Your task to perform on an android device: turn on bluetooth scan Image 0: 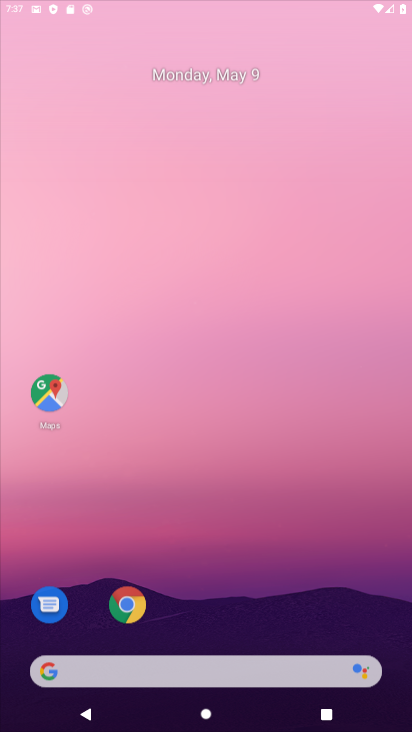
Step 0: click (286, 0)
Your task to perform on an android device: turn on bluetooth scan Image 1: 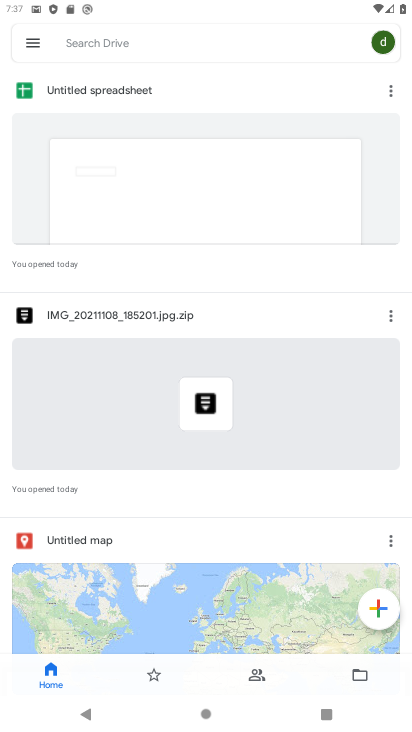
Step 1: press home button
Your task to perform on an android device: turn on bluetooth scan Image 2: 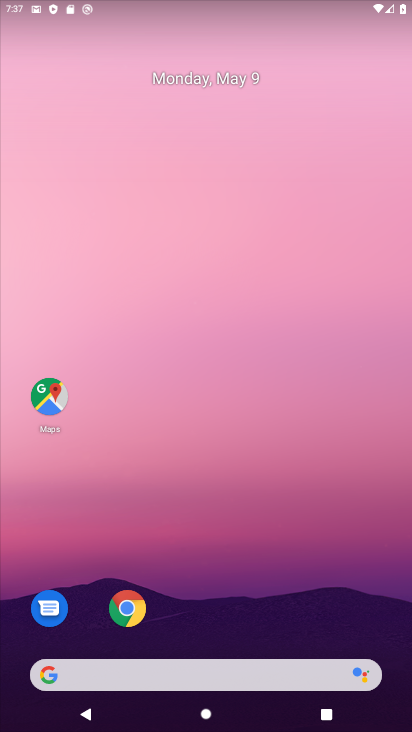
Step 2: drag from (271, 714) to (272, 37)
Your task to perform on an android device: turn on bluetooth scan Image 3: 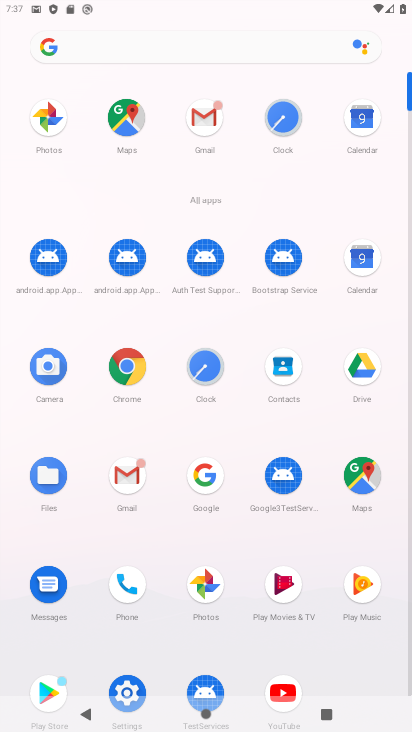
Step 3: click (123, 677)
Your task to perform on an android device: turn on bluetooth scan Image 4: 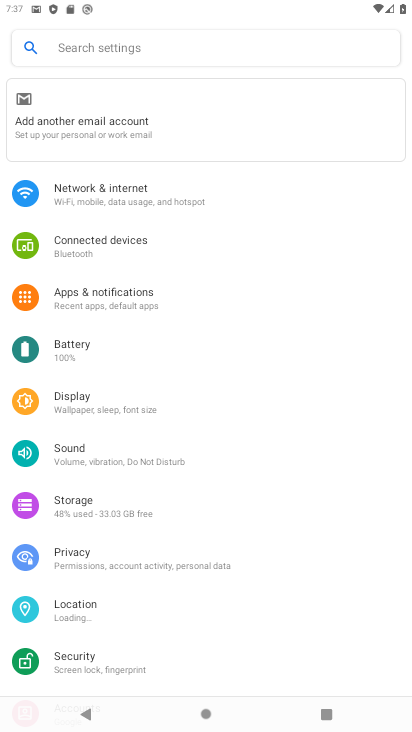
Step 4: click (60, 615)
Your task to perform on an android device: turn on bluetooth scan Image 5: 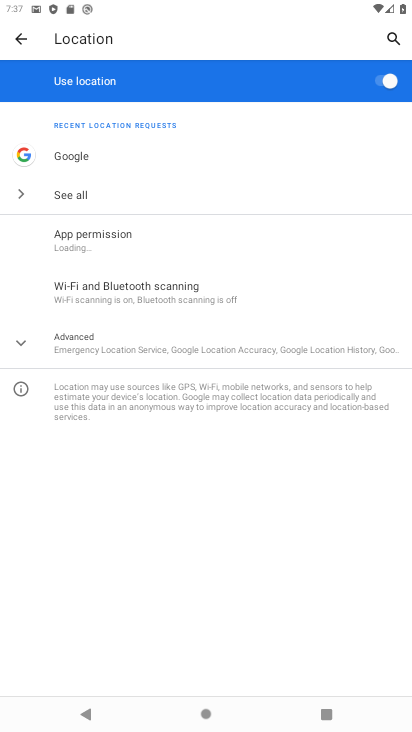
Step 5: click (197, 291)
Your task to perform on an android device: turn on bluetooth scan Image 6: 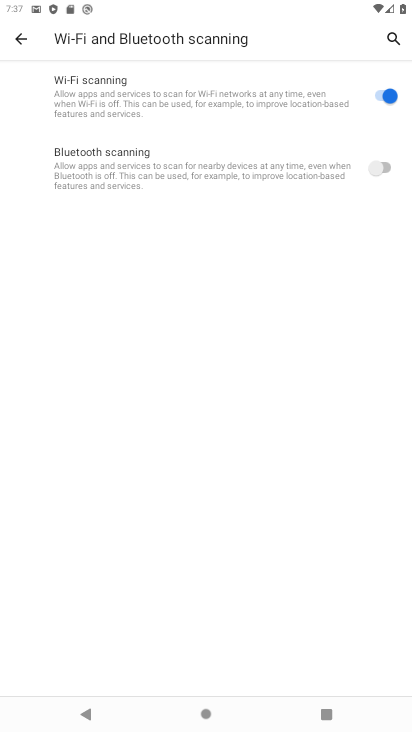
Step 6: click (382, 167)
Your task to perform on an android device: turn on bluetooth scan Image 7: 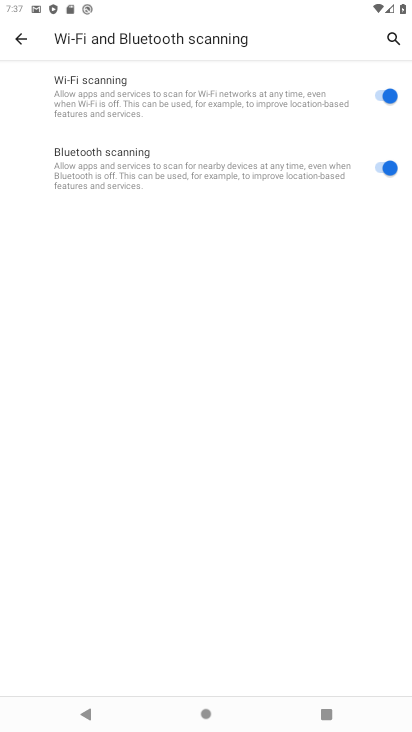
Step 7: task complete